Your task to perform on an android device: see sites visited before in the chrome app Image 0: 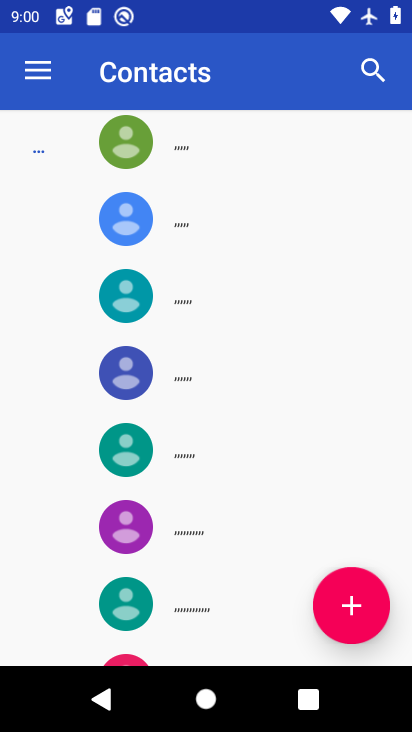
Step 0: press home button
Your task to perform on an android device: see sites visited before in the chrome app Image 1: 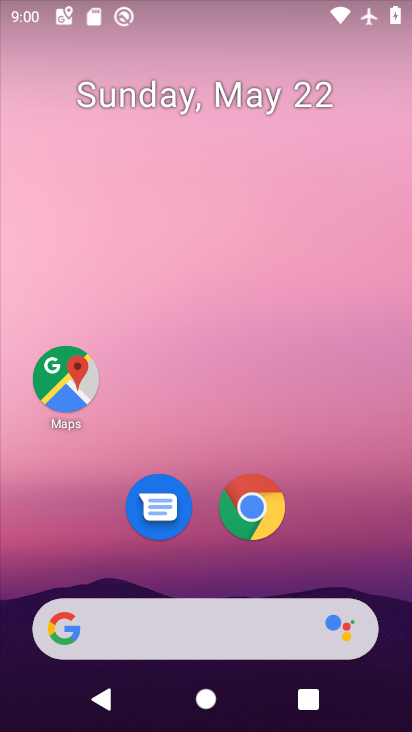
Step 1: click (263, 502)
Your task to perform on an android device: see sites visited before in the chrome app Image 2: 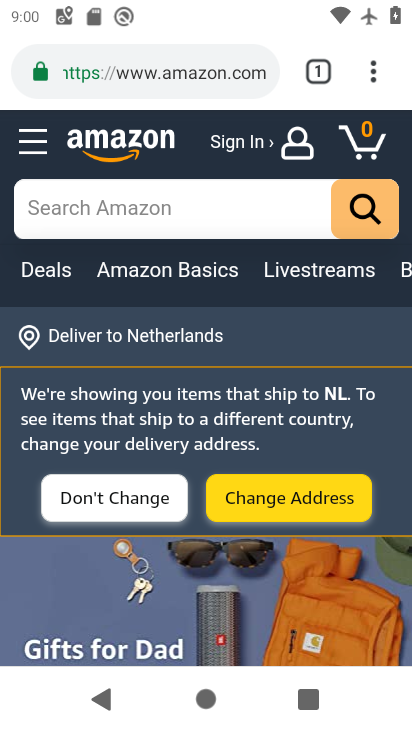
Step 2: click (392, 69)
Your task to perform on an android device: see sites visited before in the chrome app Image 3: 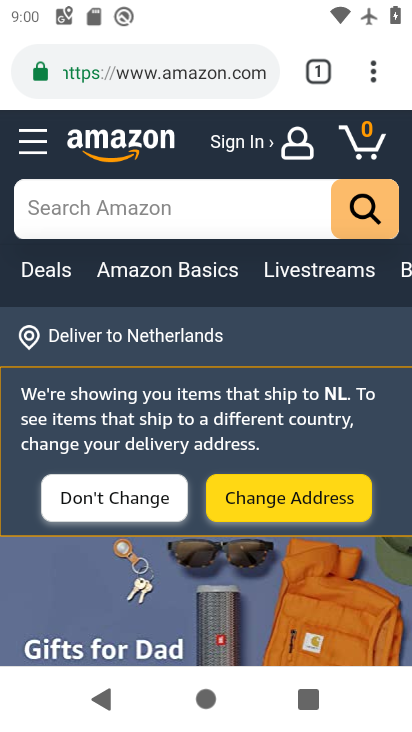
Step 3: click (392, 69)
Your task to perform on an android device: see sites visited before in the chrome app Image 4: 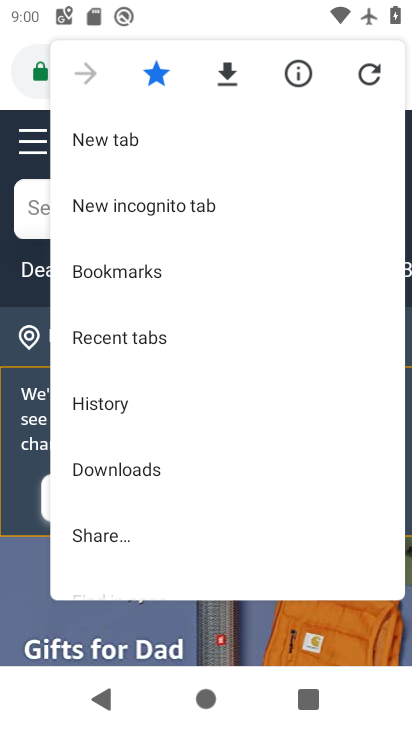
Step 4: click (136, 333)
Your task to perform on an android device: see sites visited before in the chrome app Image 5: 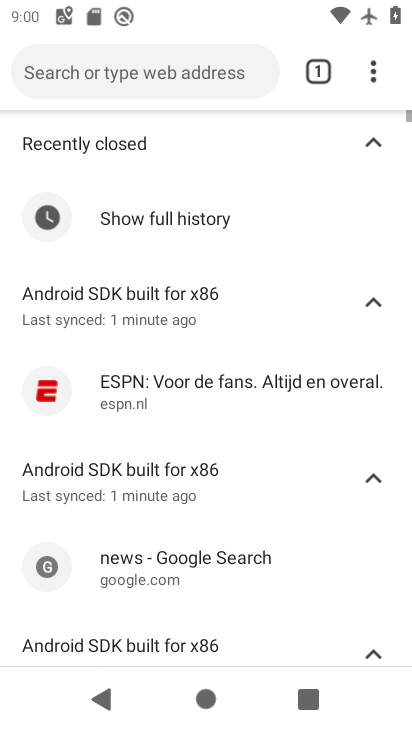
Step 5: task complete